Your task to perform on an android device: open device folders in google photos Image 0: 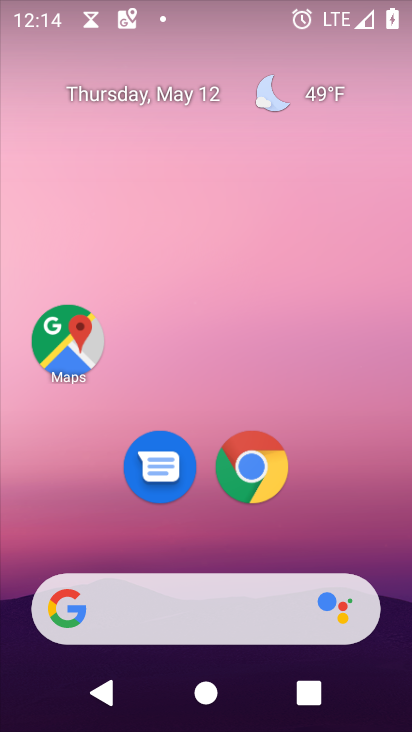
Step 0: drag from (133, 630) to (345, 125)
Your task to perform on an android device: open device folders in google photos Image 1: 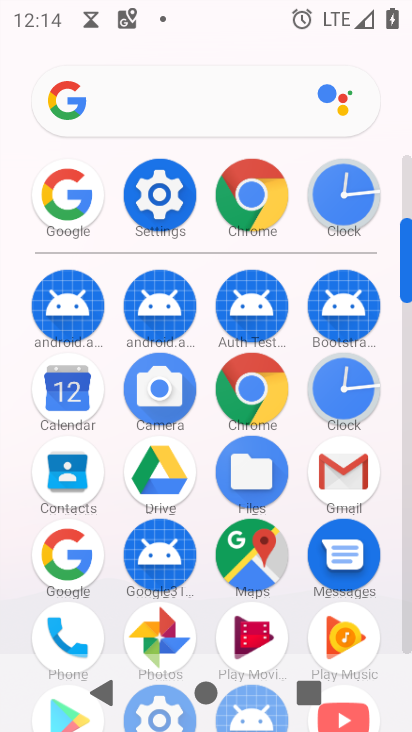
Step 1: click (160, 645)
Your task to perform on an android device: open device folders in google photos Image 2: 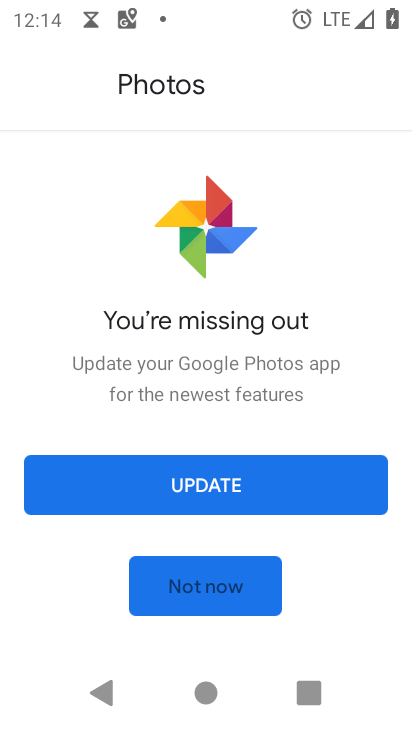
Step 2: click (222, 483)
Your task to perform on an android device: open device folders in google photos Image 3: 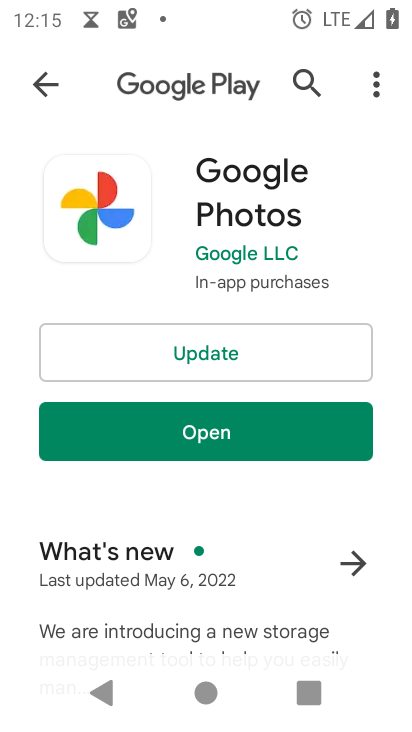
Step 3: click (169, 362)
Your task to perform on an android device: open device folders in google photos Image 4: 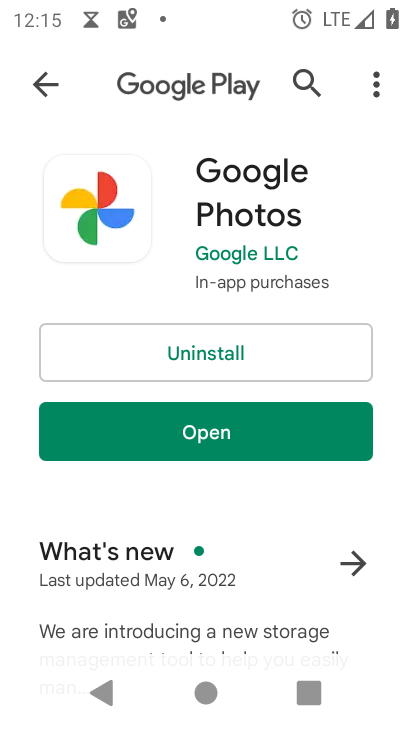
Step 4: click (213, 437)
Your task to perform on an android device: open device folders in google photos Image 5: 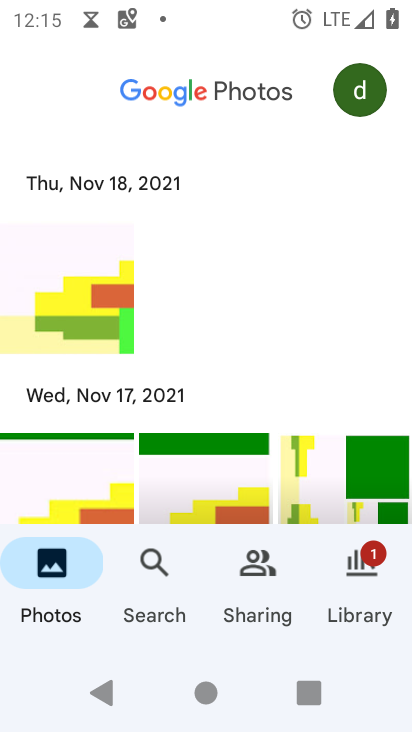
Step 5: click (168, 617)
Your task to perform on an android device: open device folders in google photos Image 6: 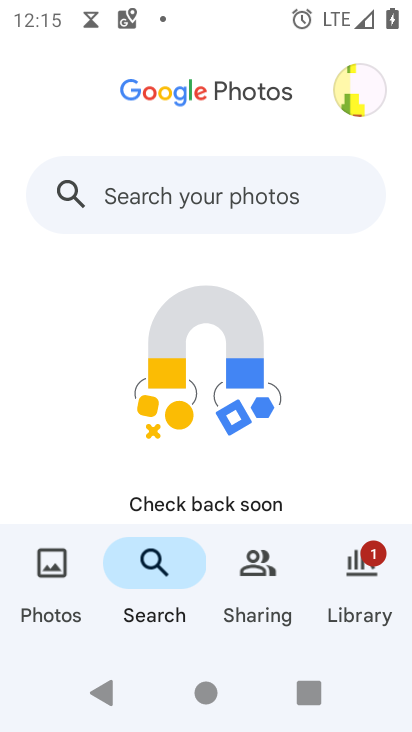
Step 6: task complete